Your task to perform on an android device: turn on airplane mode Image 0: 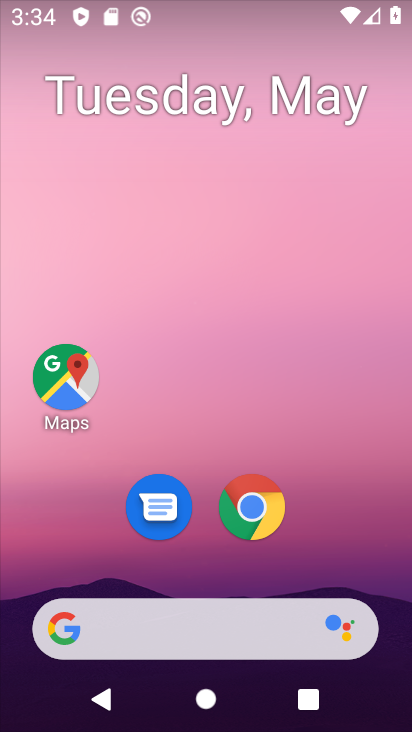
Step 0: press home button
Your task to perform on an android device: turn on airplane mode Image 1: 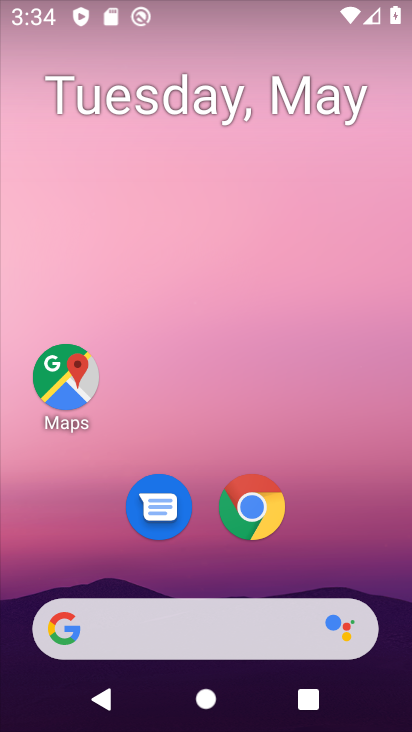
Step 1: drag from (342, 525) to (315, 0)
Your task to perform on an android device: turn on airplane mode Image 2: 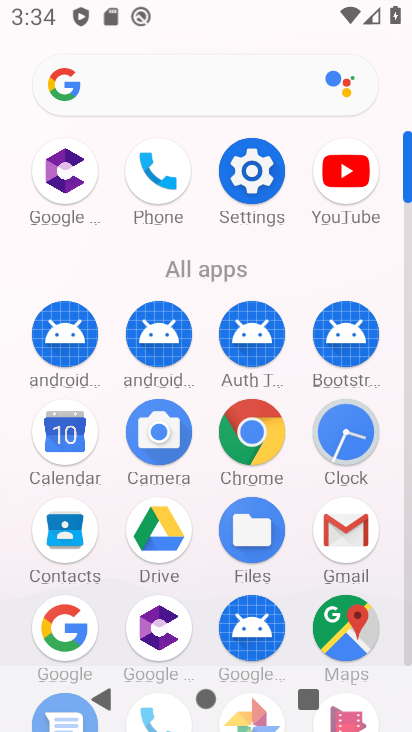
Step 2: click (233, 154)
Your task to perform on an android device: turn on airplane mode Image 3: 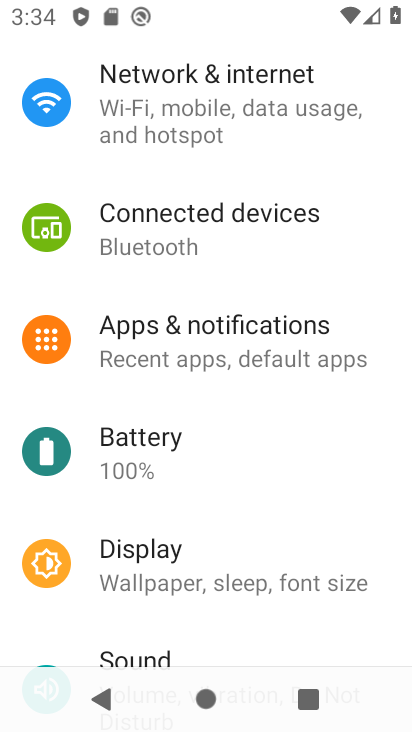
Step 3: drag from (293, 171) to (371, 562)
Your task to perform on an android device: turn on airplane mode Image 4: 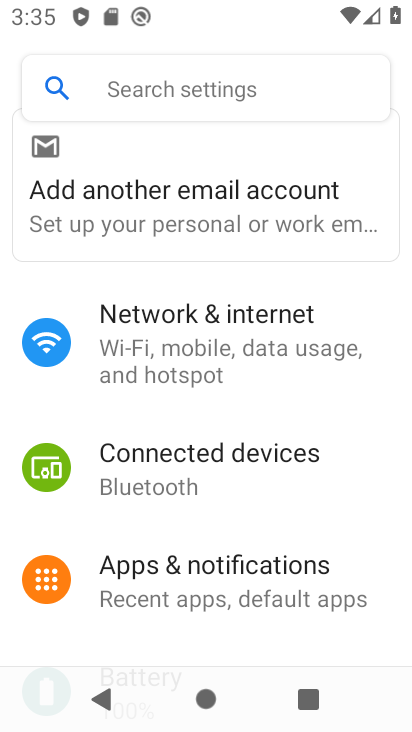
Step 4: click (162, 354)
Your task to perform on an android device: turn on airplane mode Image 5: 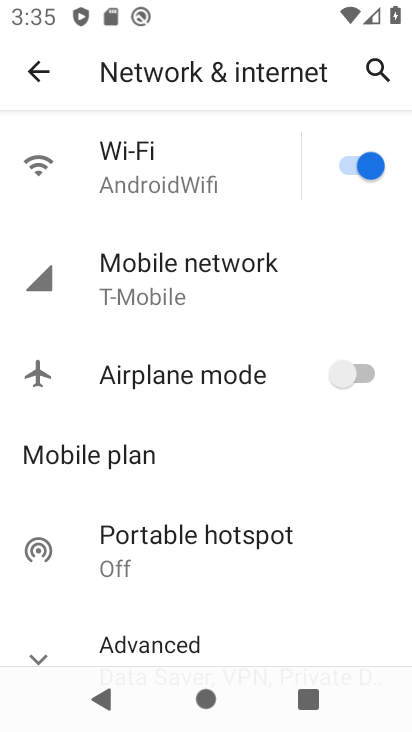
Step 5: click (349, 375)
Your task to perform on an android device: turn on airplane mode Image 6: 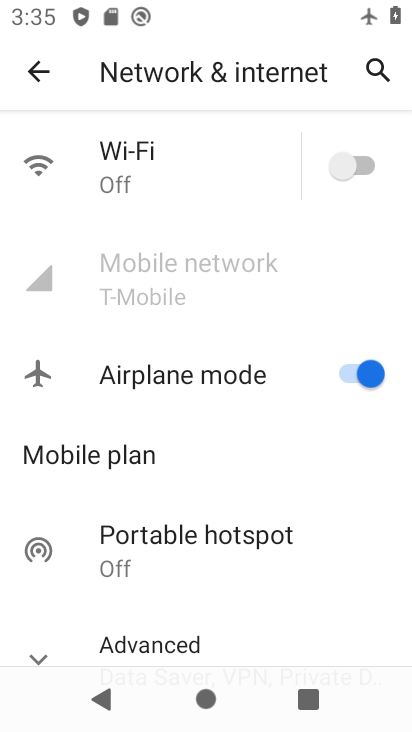
Step 6: task complete